Your task to perform on an android device: remove spam from my inbox in the gmail app Image 0: 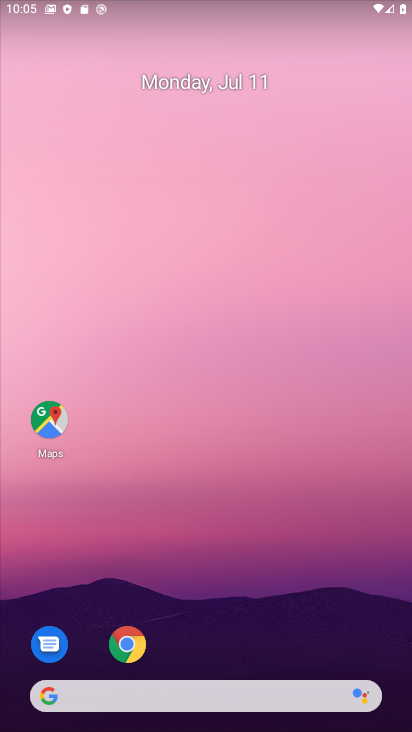
Step 0: click (211, 188)
Your task to perform on an android device: remove spam from my inbox in the gmail app Image 1: 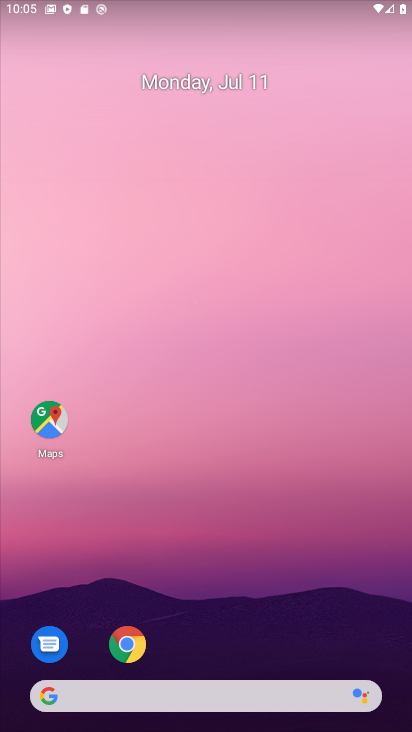
Step 1: click (160, 30)
Your task to perform on an android device: remove spam from my inbox in the gmail app Image 2: 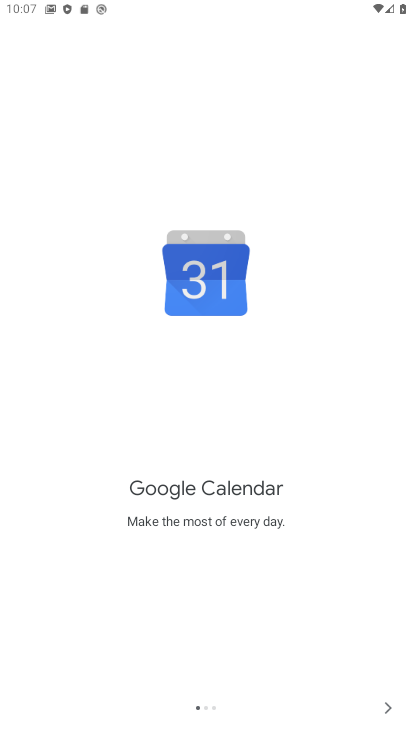
Step 2: press back button
Your task to perform on an android device: remove spam from my inbox in the gmail app Image 3: 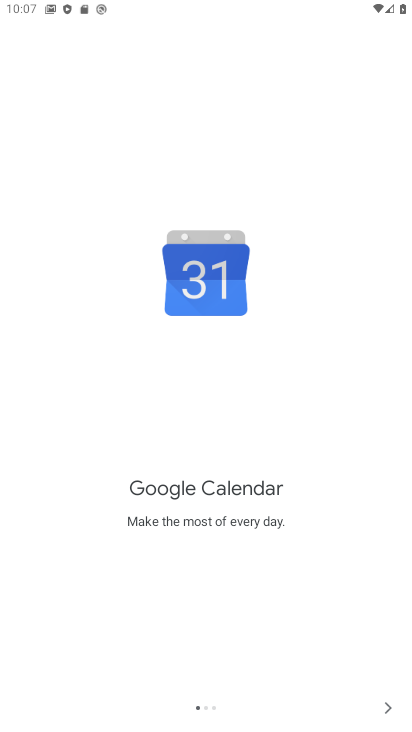
Step 3: press back button
Your task to perform on an android device: remove spam from my inbox in the gmail app Image 4: 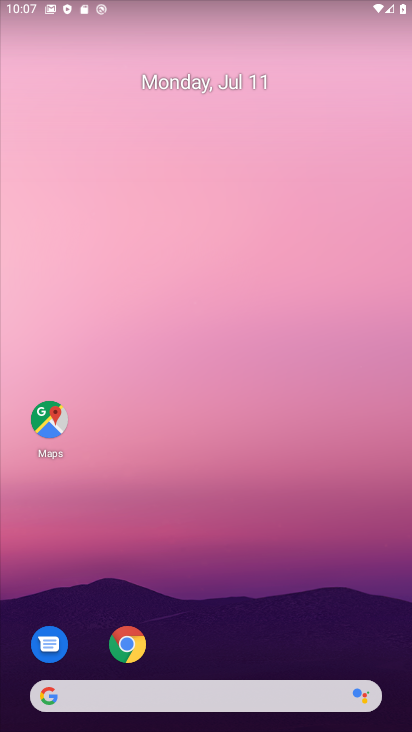
Step 4: drag from (288, 638) to (268, 12)
Your task to perform on an android device: remove spam from my inbox in the gmail app Image 5: 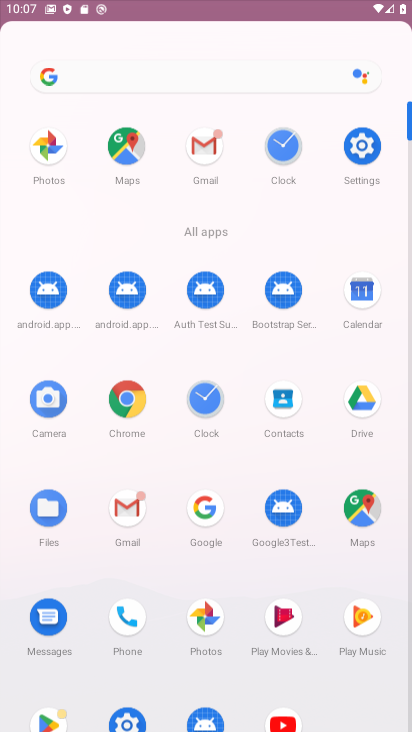
Step 5: drag from (208, 394) to (241, 43)
Your task to perform on an android device: remove spam from my inbox in the gmail app Image 6: 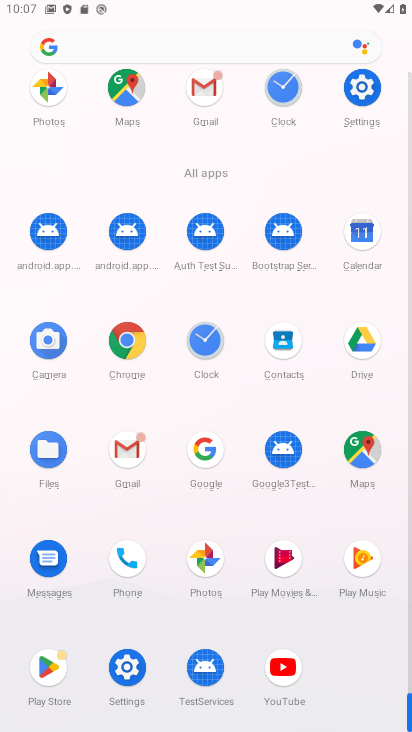
Step 6: click (116, 438)
Your task to perform on an android device: remove spam from my inbox in the gmail app Image 7: 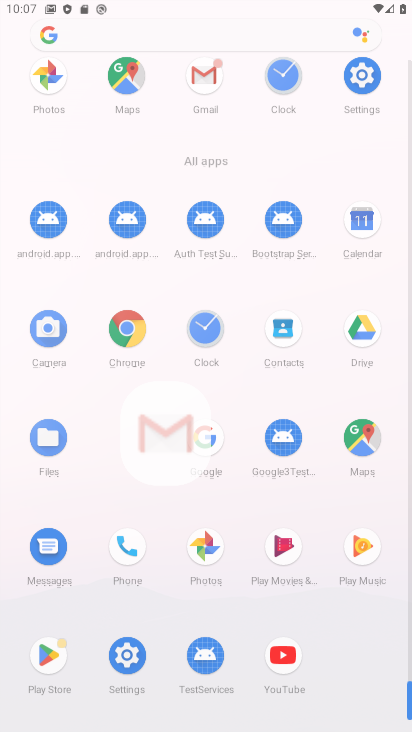
Step 7: click (120, 441)
Your task to perform on an android device: remove spam from my inbox in the gmail app Image 8: 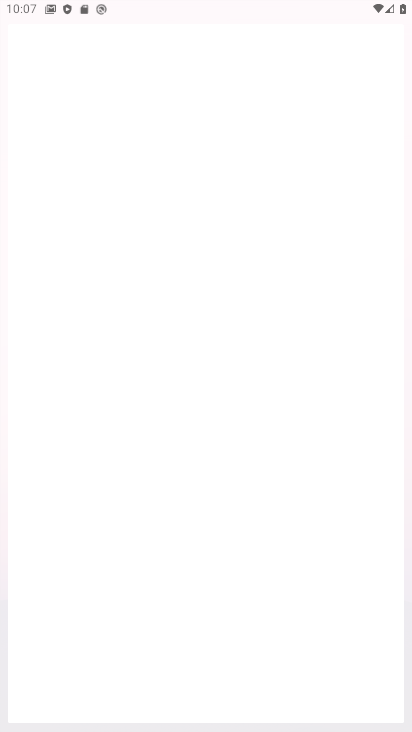
Step 8: click (121, 442)
Your task to perform on an android device: remove spam from my inbox in the gmail app Image 9: 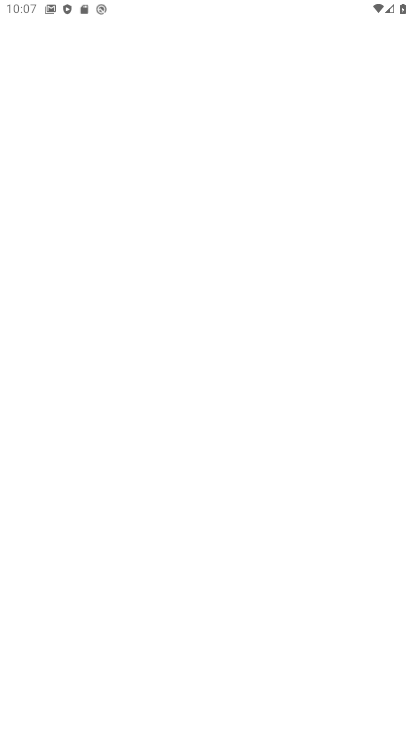
Step 9: click (121, 442)
Your task to perform on an android device: remove spam from my inbox in the gmail app Image 10: 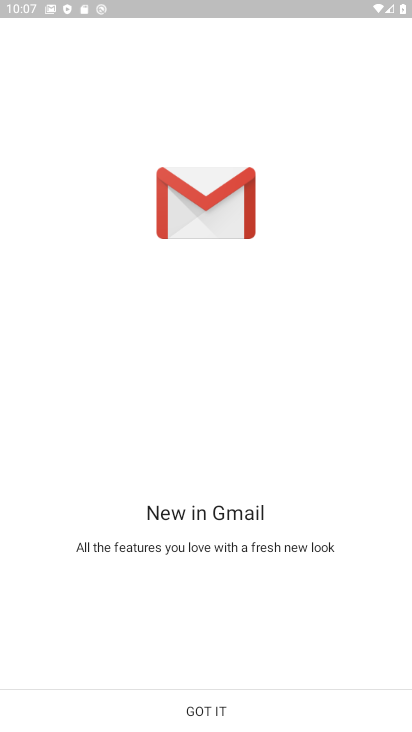
Step 10: click (220, 693)
Your task to perform on an android device: remove spam from my inbox in the gmail app Image 11: 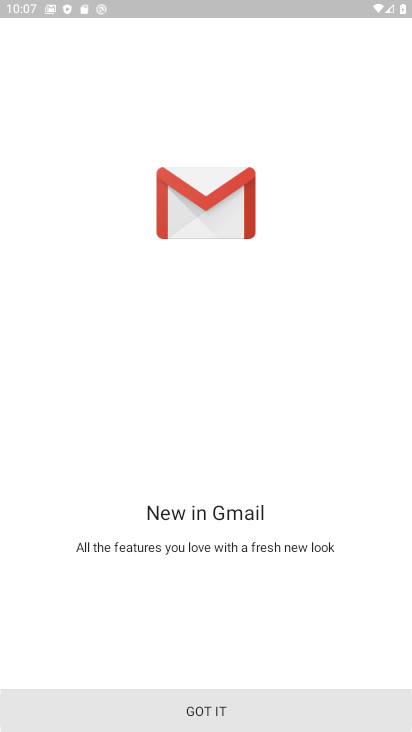
Step 11: click (220, 700)
Your task to perform on an android device: remove spam from my inbox in the gmail app Image 12: 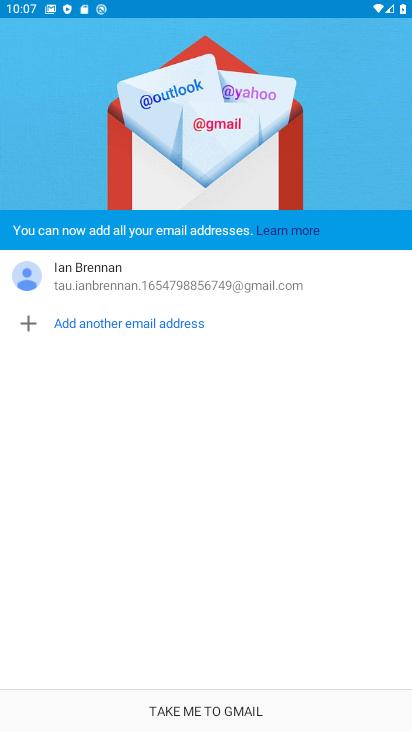
Step 12: click (209, 709)
Your task to perform on an android device: remove spam from my inbox in the gmail app Image 13: 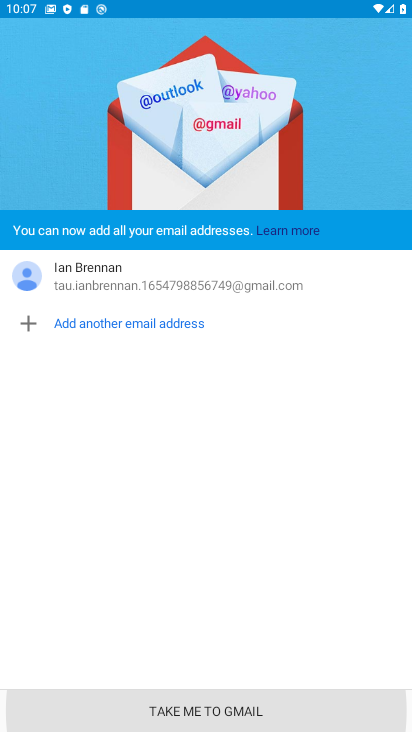
Step 13: click (210, 705)
Your task to perform on an android device: remove spam from my inbox in the gmail app Image 14: 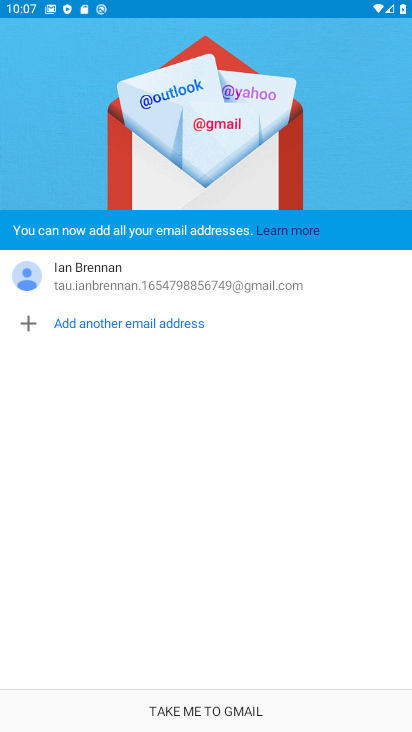
Step 14: click (211, 705)
Your task to perform on an android device: remove spam from my inbox in the gmail app Image 15: 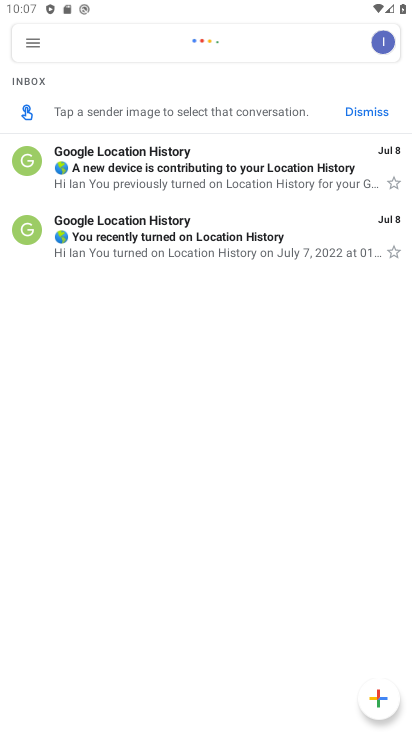
Step 15: click (37, 31)
Your task to perform on an android device: remove spam from my inbox in the gmail app Image 16: 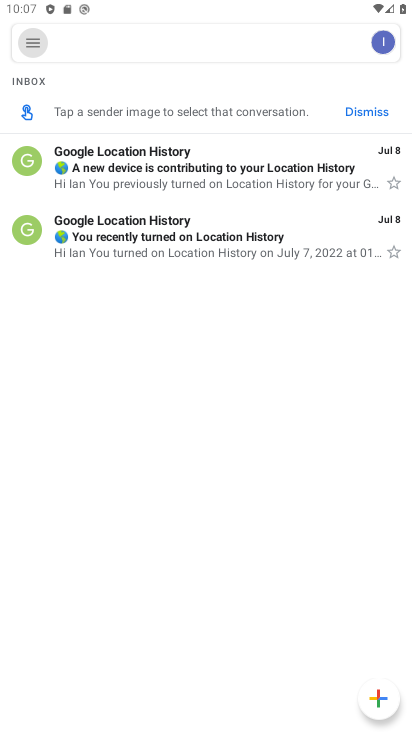
Step 16: click (37, 31)
Your task to perform on an android device: remove spam from my inbox in the gmail app Image 17: 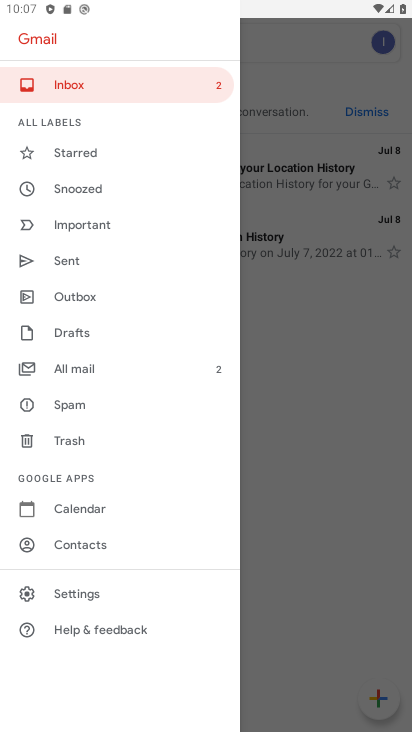
Step 17: click (67, 361)
Your task to perform on an android device: remove spam from my inbox in the gmail app Image 18: 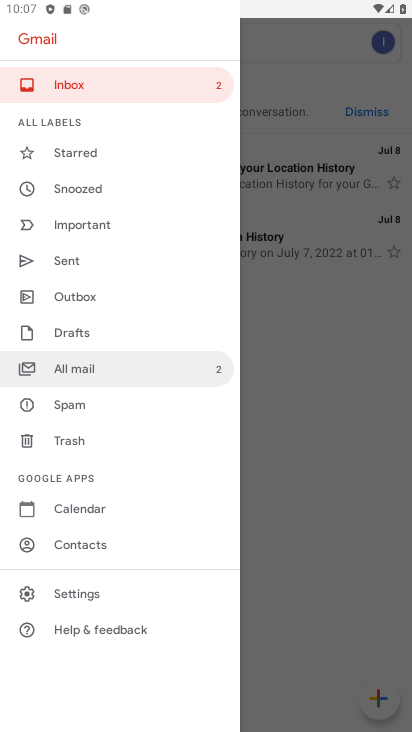
Step 18: click (67, 361)
Your task to perform on an android device: remove spam from my inbox in the gmail app Image 19: 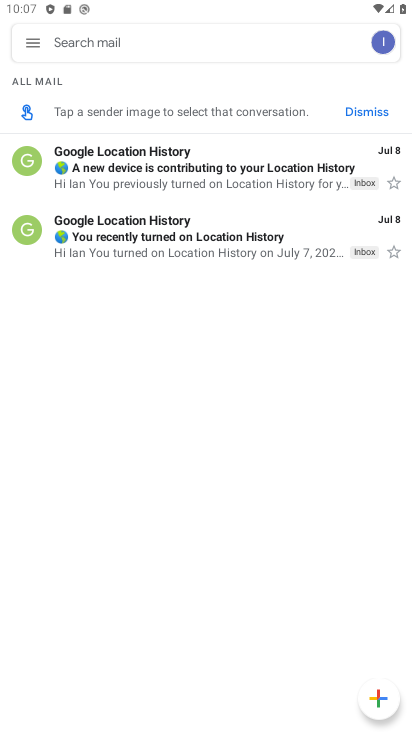
Step 19: click (22, 48)
Your task to perform on an android device: remove spam from my inbox in the gmail app Image 20: 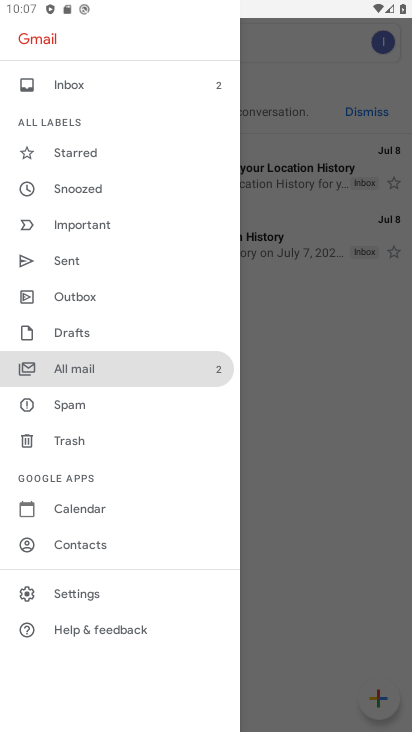
Step 20: click (69, 403)
Your task to perform on an android device: remove spam from my inbox in the gmail app Image 21: 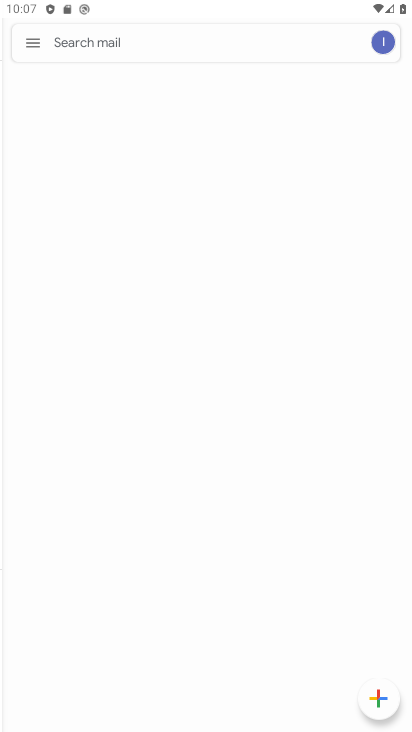
Step 21: click (67, 399)
Your task to perform on an android device: remove spam from my inbox in the gmail app Image 22: 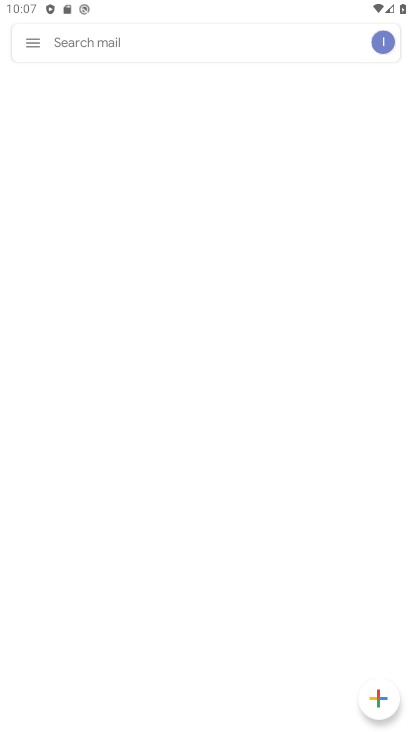
Step 22: click (67, 399)
Your task to perform on an android device: remove spam from my inbox in the gmail app Image 23: 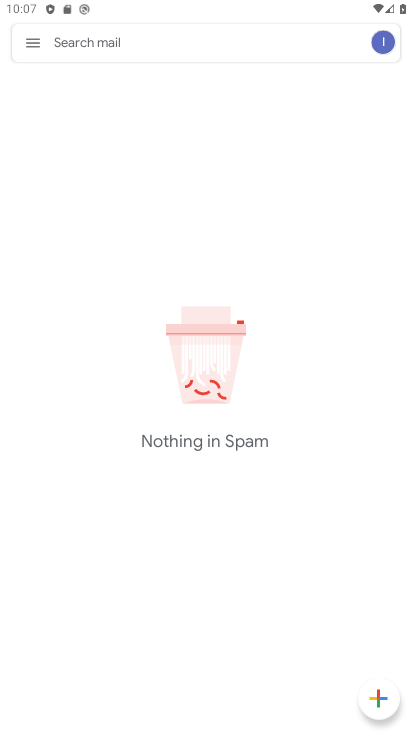
Step 23: task complete